Your task to perform on an android device: Open network settings Image 0: 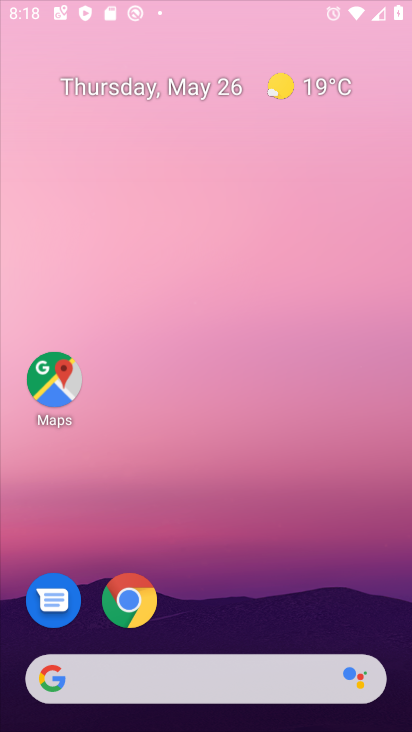
Step 0: press home button
Your task to perform on an android device: Open network settings Image 1: 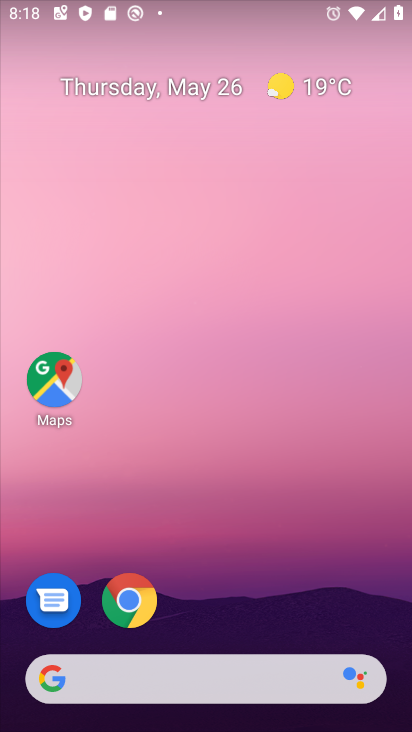
Step 1: drag from (229, 619) to (229, 82)
Your task to perform on an android device: Open network settings Image 2: 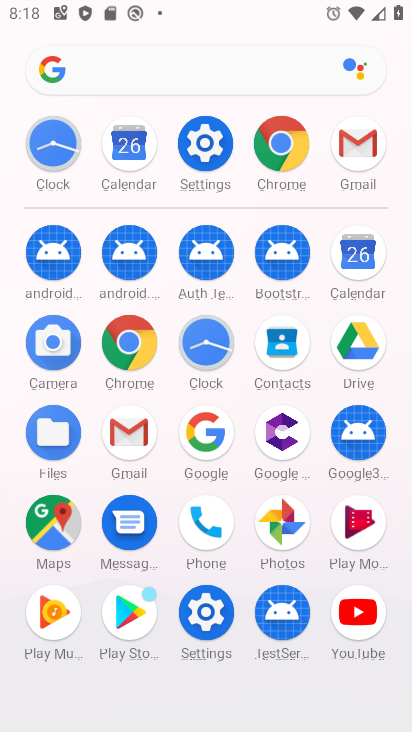
Step 2: click (195, 157)
Your task to perform on an android device: Open network settings Image 3: 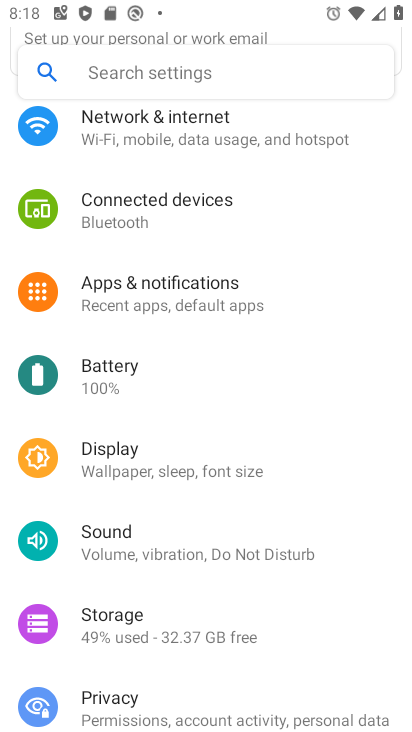
Step 3: click (181, 133)
Your task to perform on an android device: Open network settings Image 4: 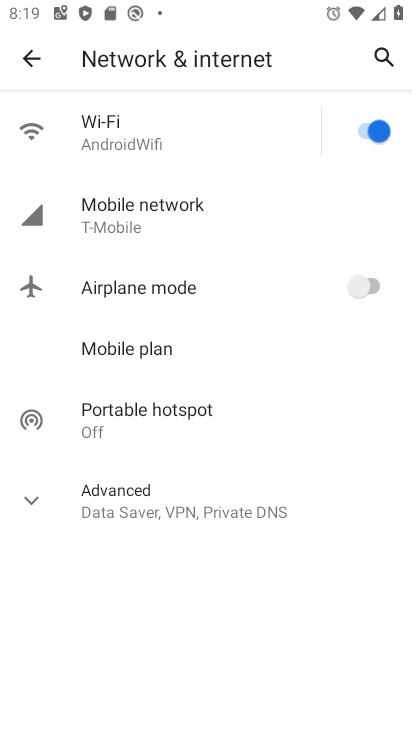
Step 4: task complete